Your task to perform on an android device: Open CNN.com Image 0: 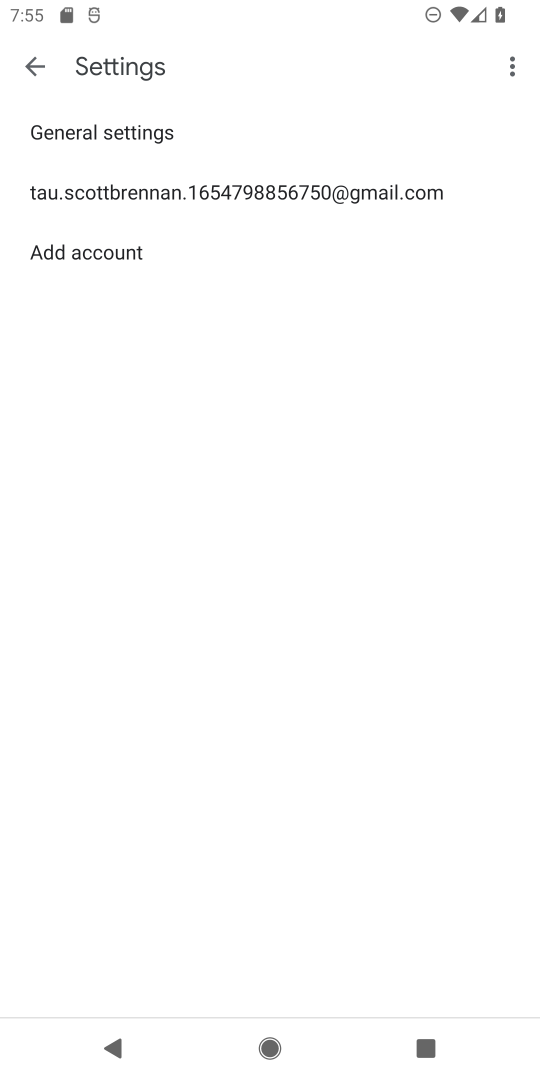
Step 0: press home button
Your task to perform on an android device: Open CNN.com Image 1: 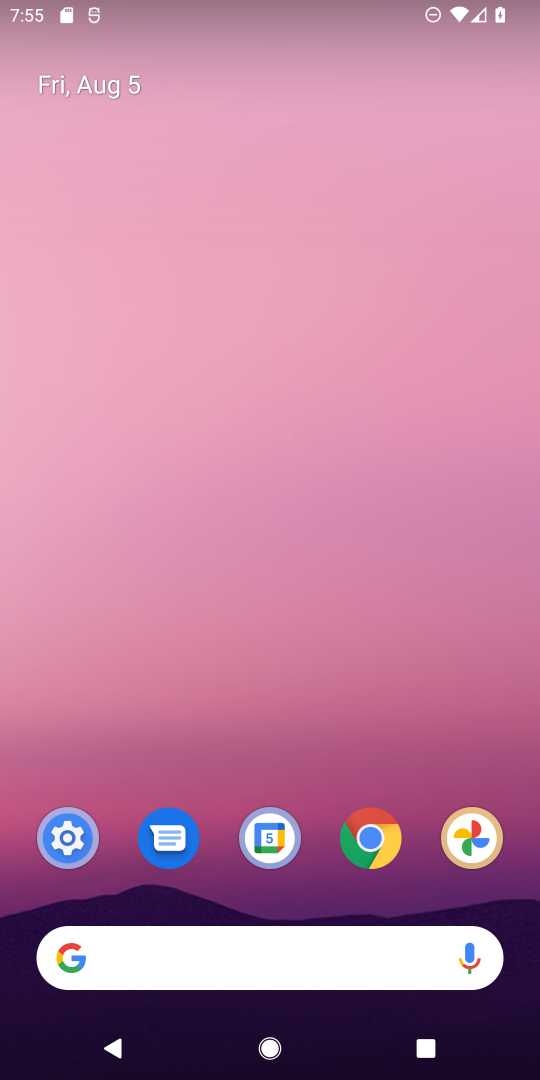
Step 1: drag from (289, 885) to (281, 254)
Your task to perform on an android device: Open CNN.com Image 2: 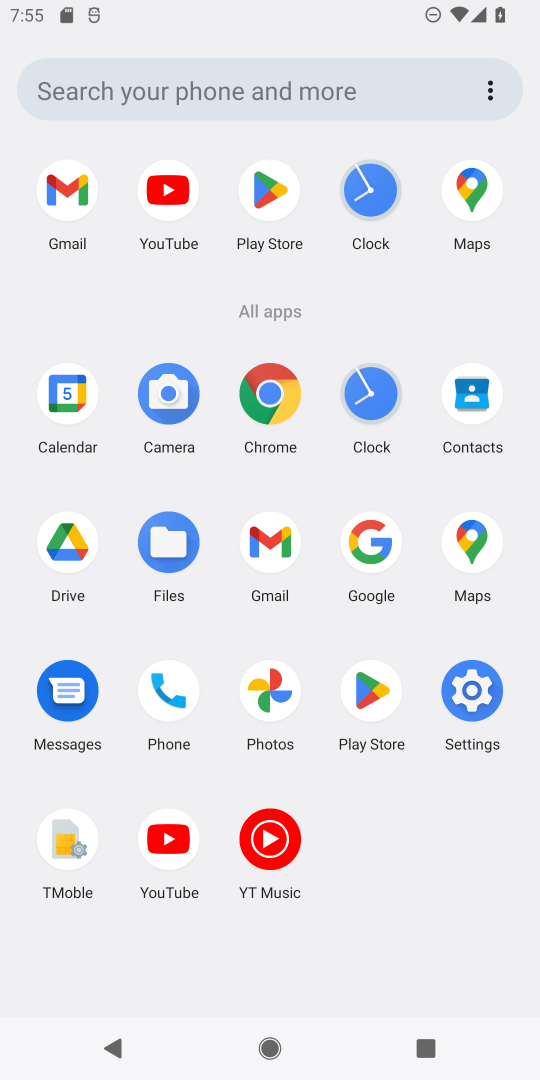
Step 2: click (380, 551)
Your task to perform on an android device: Open CNN.com Image 3: 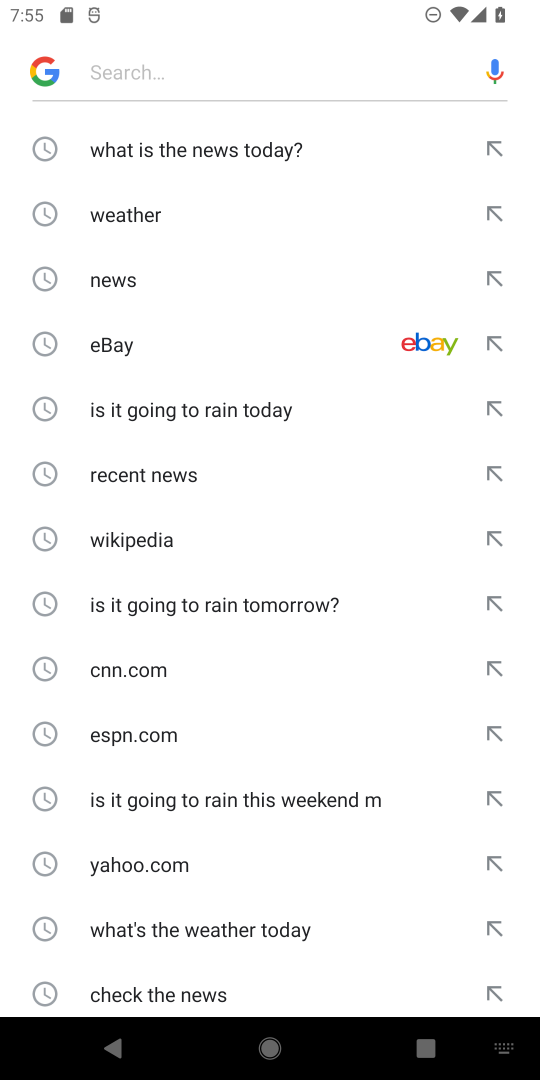
Step 3: click (227, 77)
Your task to perform on an android device: Open CNN.com Image 4: 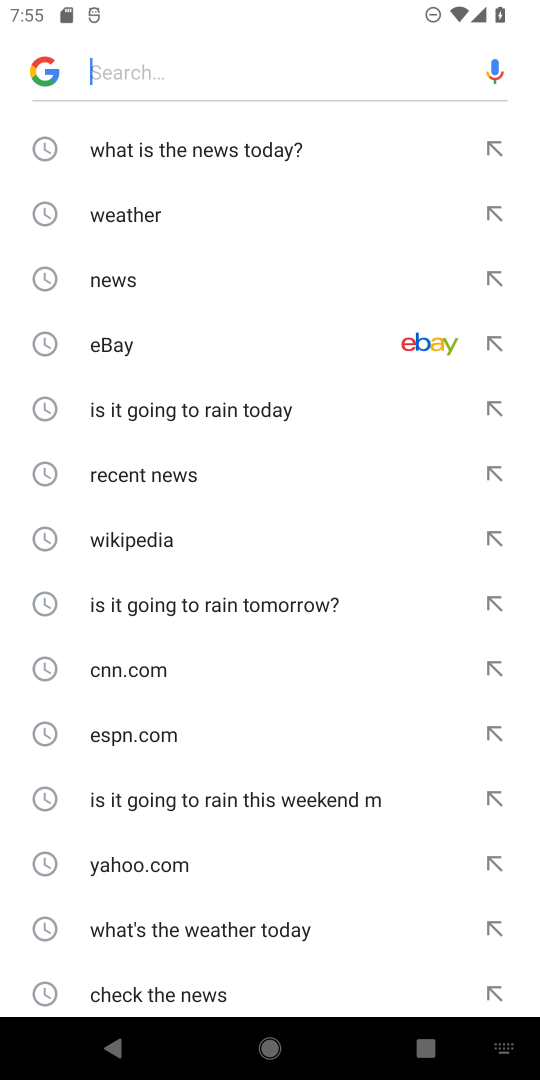
Step 4: click (106, 669)
Your task to perform on an android device: Open CNN.com Image 5: 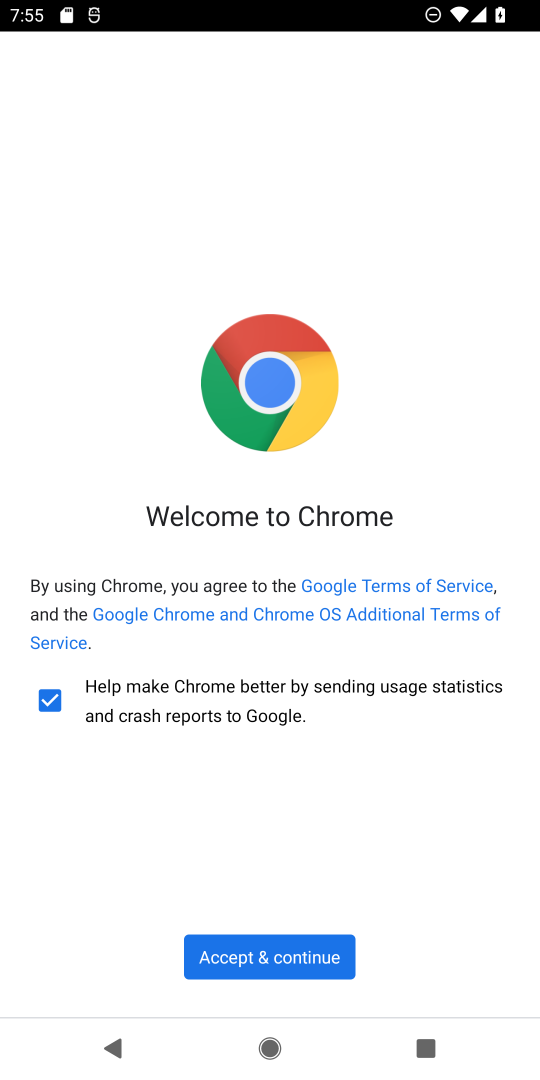
Step 5: click (314, 948)
Your task to perform on an android device: Open CNN.com Image 6: 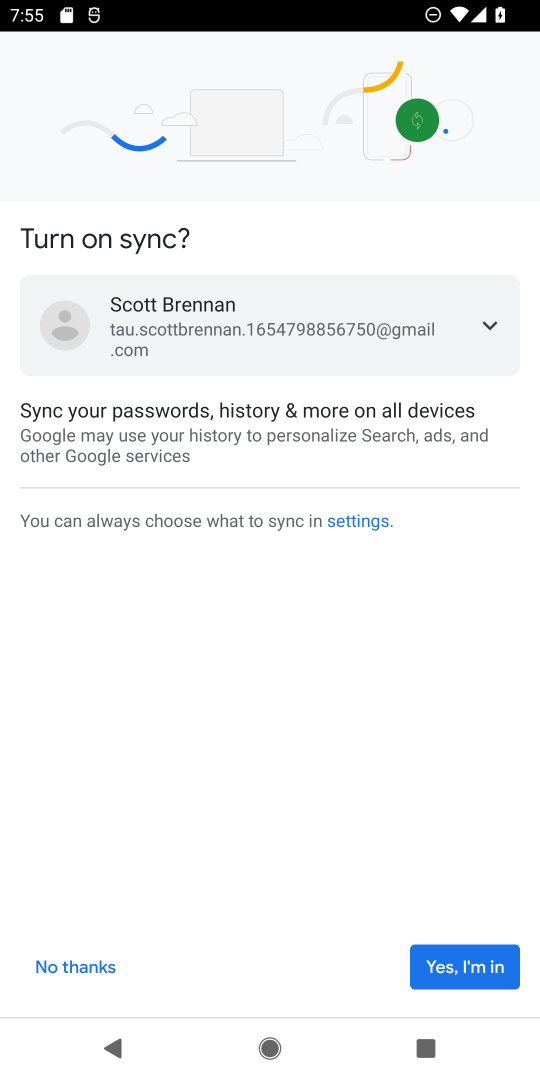
Step 6: click (443, 958)
Your task to perform on an android device: Open CNN.com Image 7: 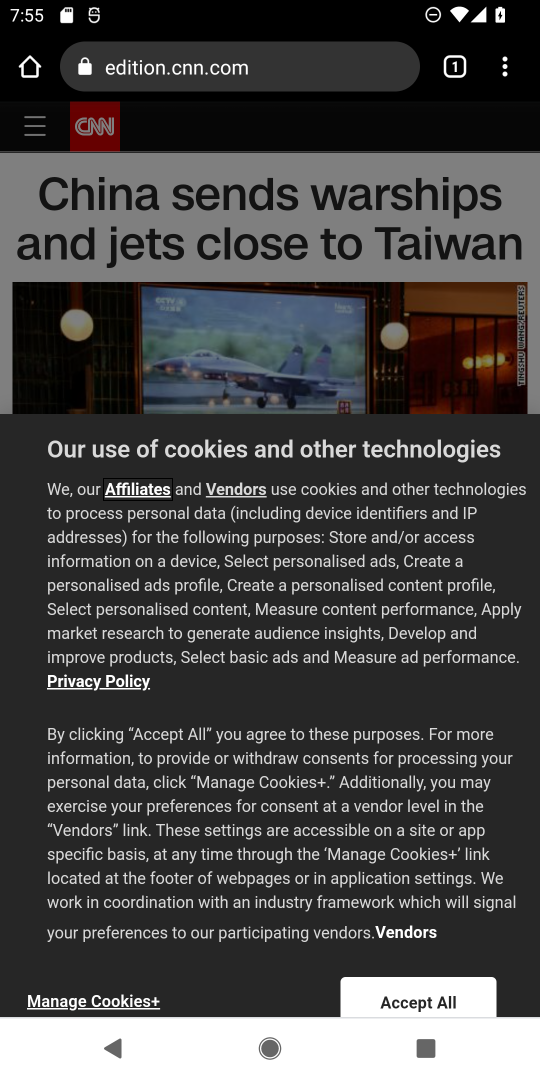
Step 7: task complete